Your task to perform on an android device: Open Yahoo.com Image 0: 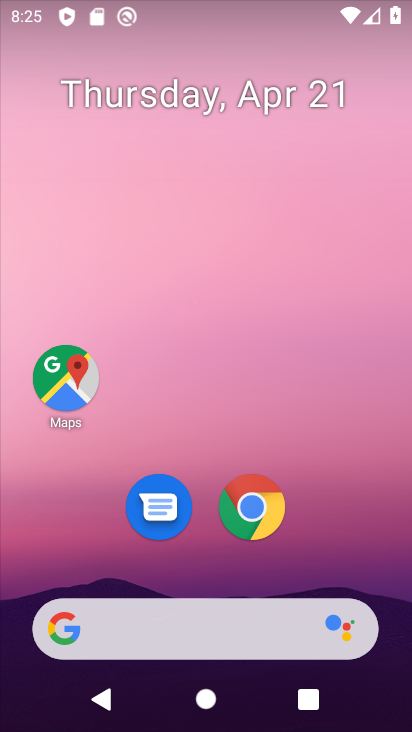
Step 0: drag from (371, 558) to (367, 154)
Your task to perform on an android device: Open Yahoo.com Image 1: 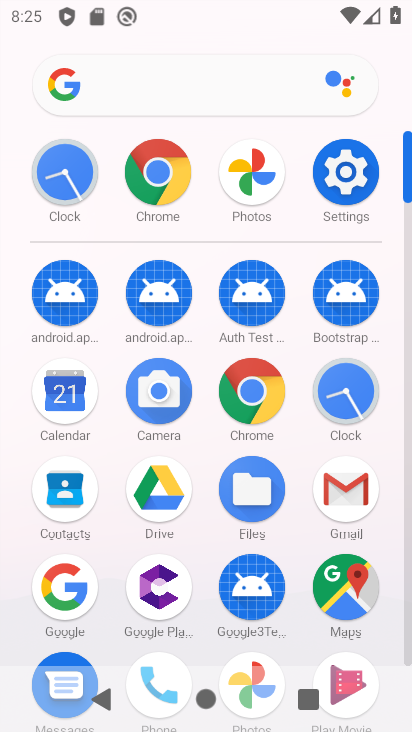
Step 1: drag from (209, 537) to (204, 240)
Your task to perform on an android device: Open Yahoo.com Image 2: 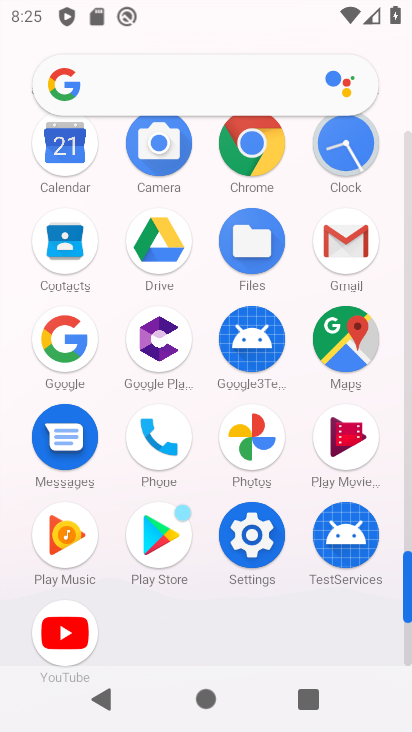
Step 2: click (254, 159)
Your task to perform on an android device: Open Yahoo.com Image 3: 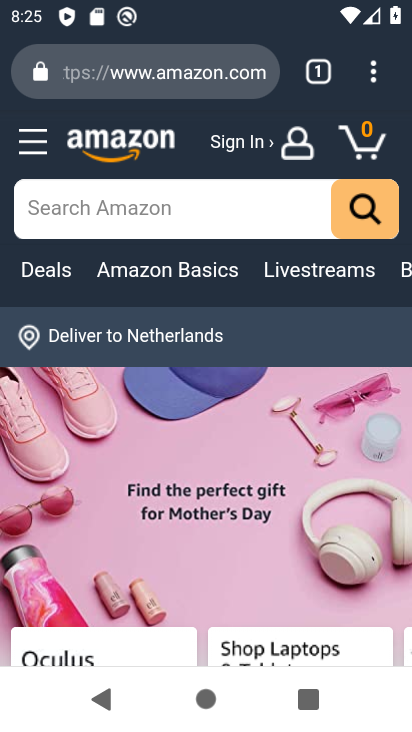
Step 3: click (176, 60)
Your task to perform on an android device: Open Yahoo.com Image 4: 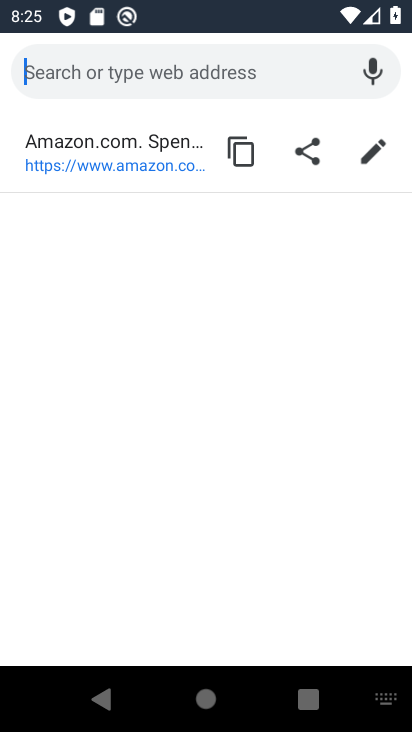
Step 4: type "yahoo.com"
Your task to perform on an android device: Open Yahoo.com Image 5: 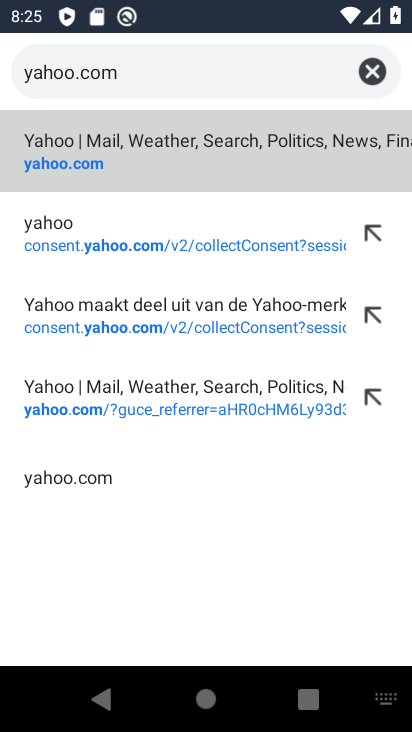
Step 5: click (196, 171)
Your task to perform on an android device: Open Yahoo.com Image 6: 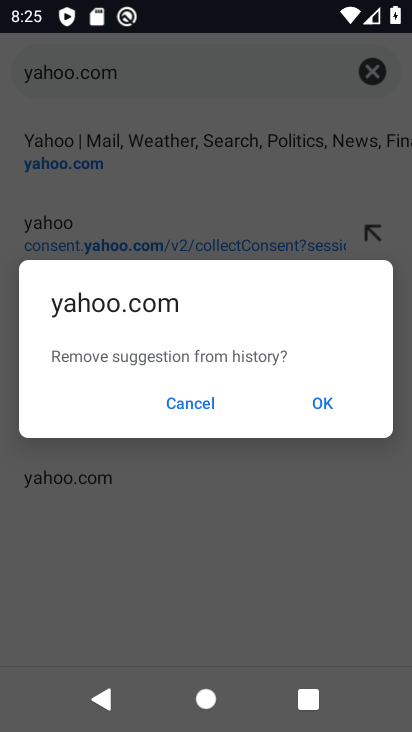
Step 6: click (312, 399)
Your task to perform on an android device: Open Yahoo.com Image 7: 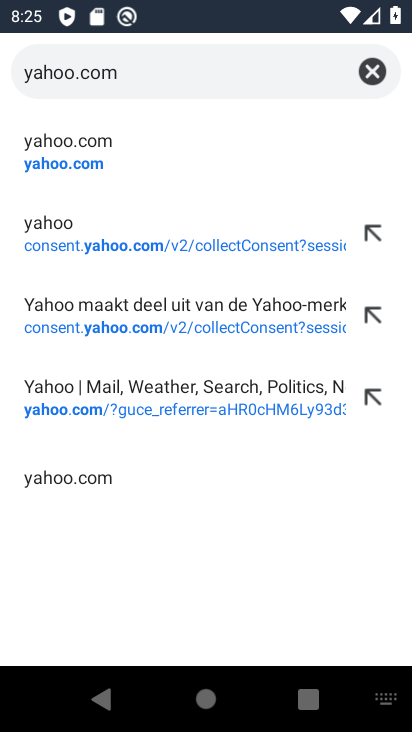
Step 7: click (56, 159)
Your task to perform on an android device: Open Yahoo.com Image 8: 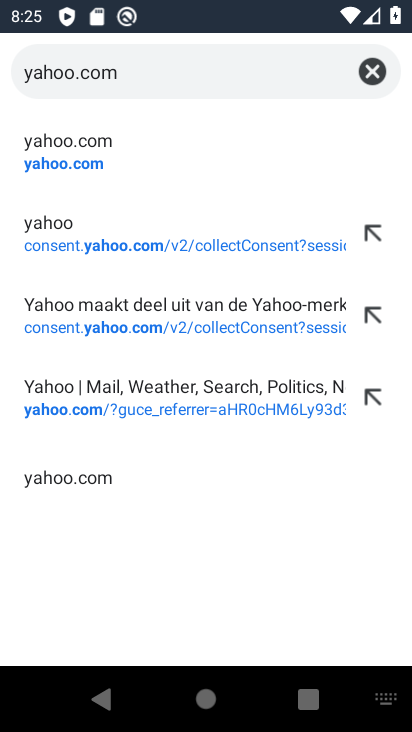
Step 8: click (56, 158)
Your task to perform on an android device: Open Yahoo.com Image 9: 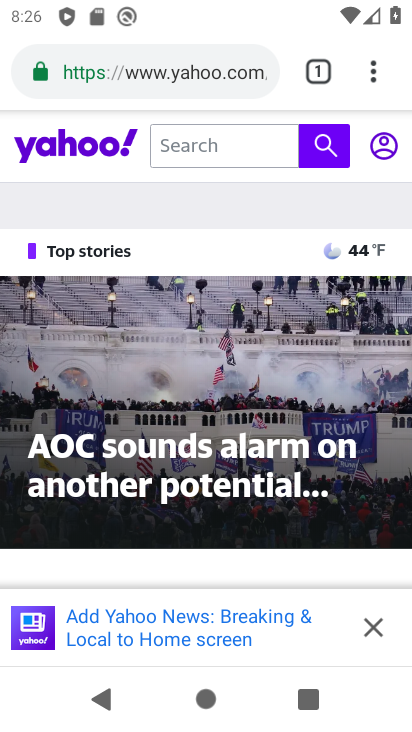
Step 9: task complete